Your task to perform on an android device: uninstall "Google Duo" Image 0: 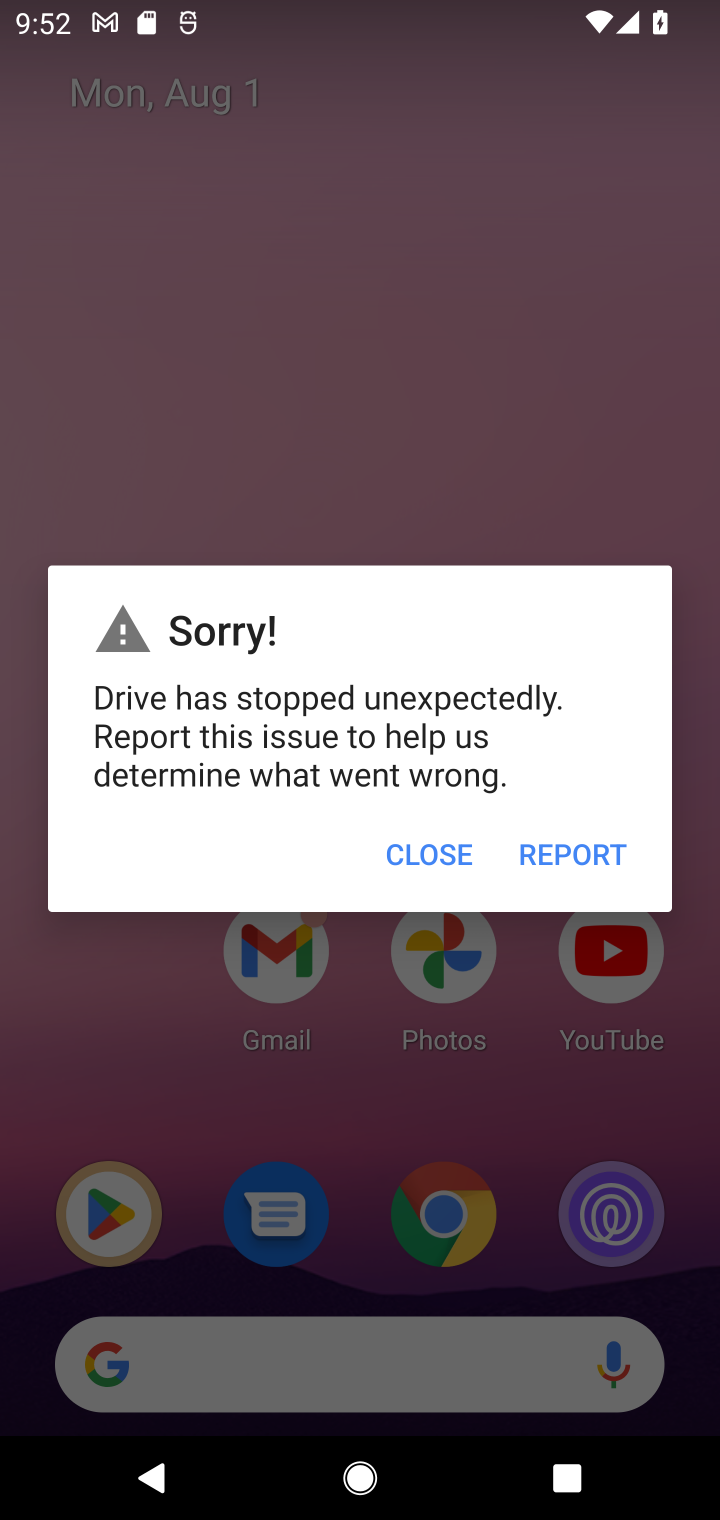
Step 0: press home button
Your task to perform on an android device: uninstall "Google Duo" Image 1: 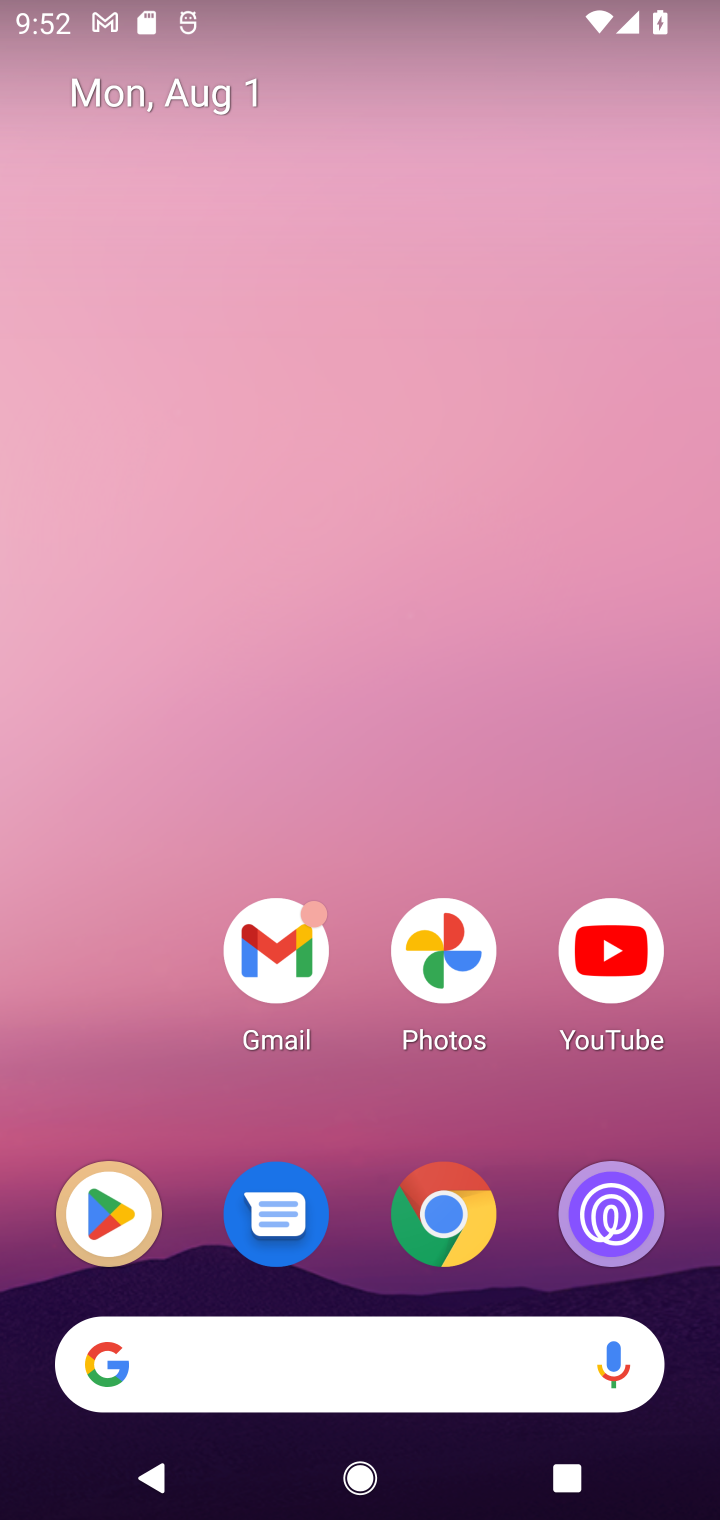
Step 1: click (89, 1216)
Your task to perform on an android device: uninstall "Google Duo" Image 2: 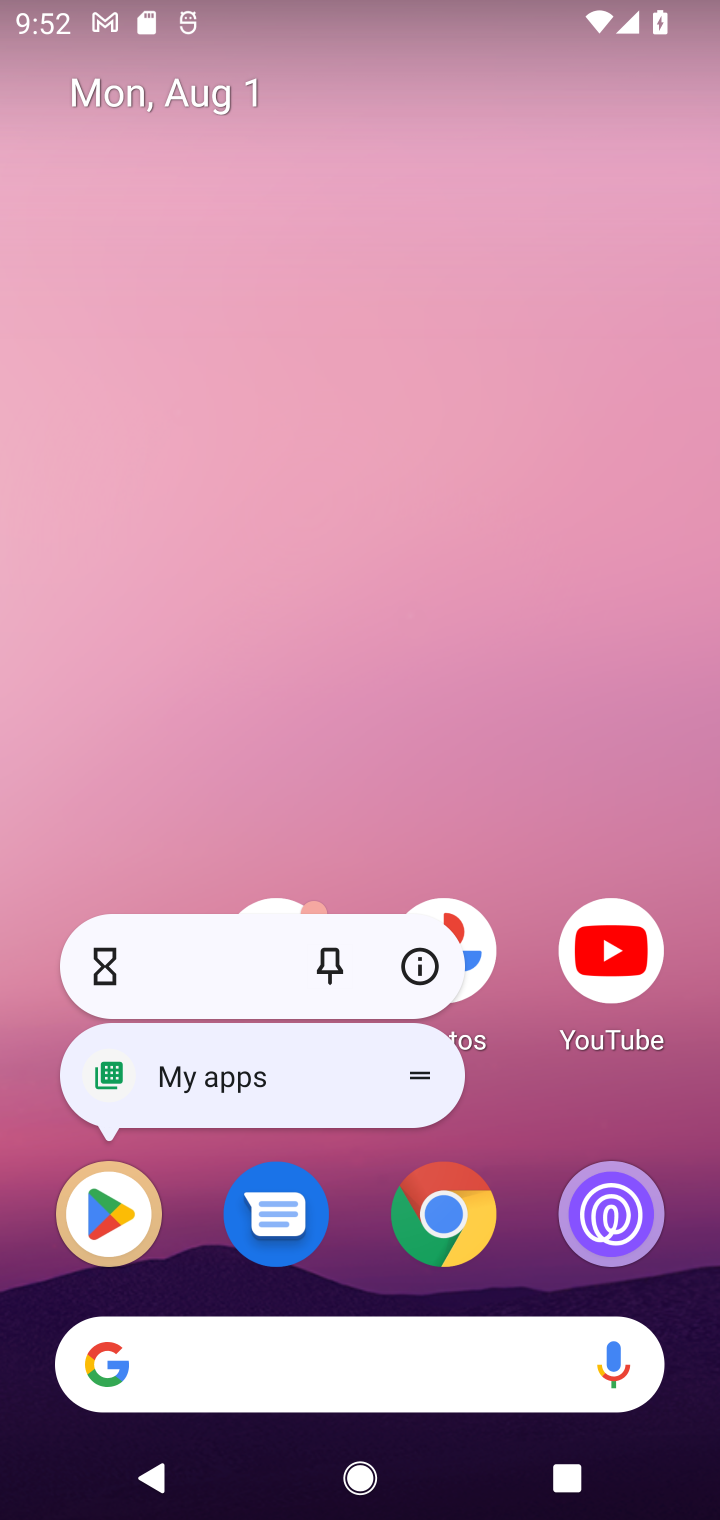
Step 2: click (95, 1221)
Your task to perform on an android device: uninstall "Google Duo" Image 3: 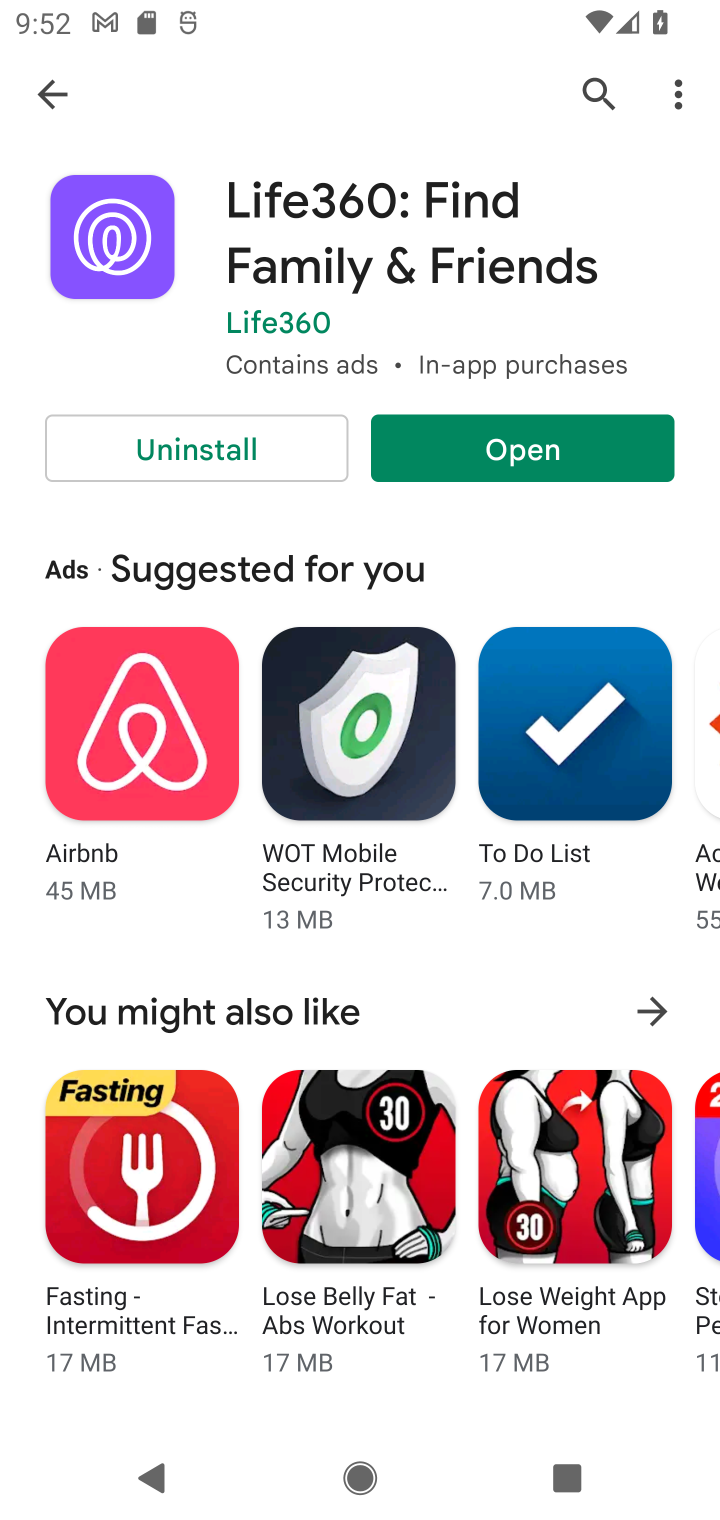
Step 3: click (599, 91)
Your task to perform on an android device: uninstall "Google Duo" Image 4: 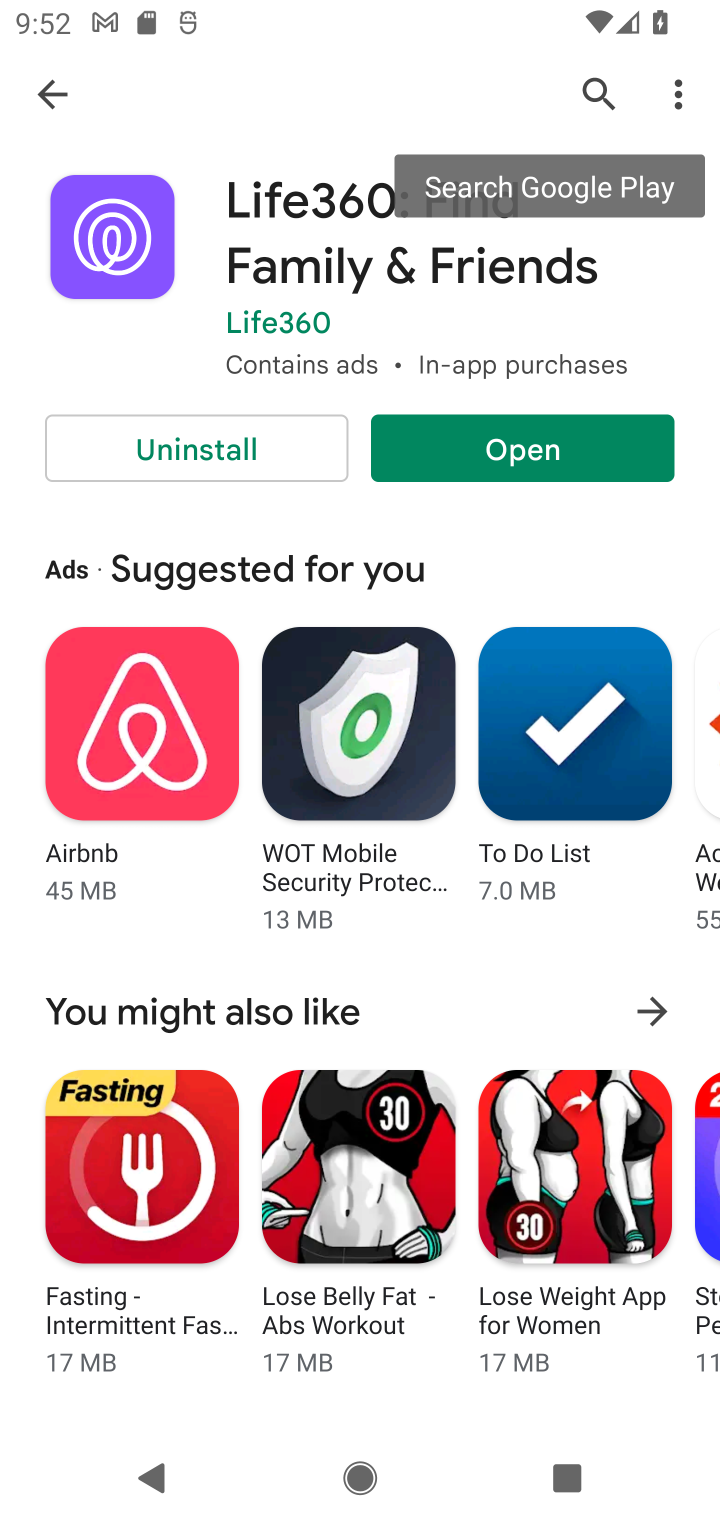
Step 4: click (590, 83)
Your task to perform on an android device: uninstall "Google Duo" Image 5: 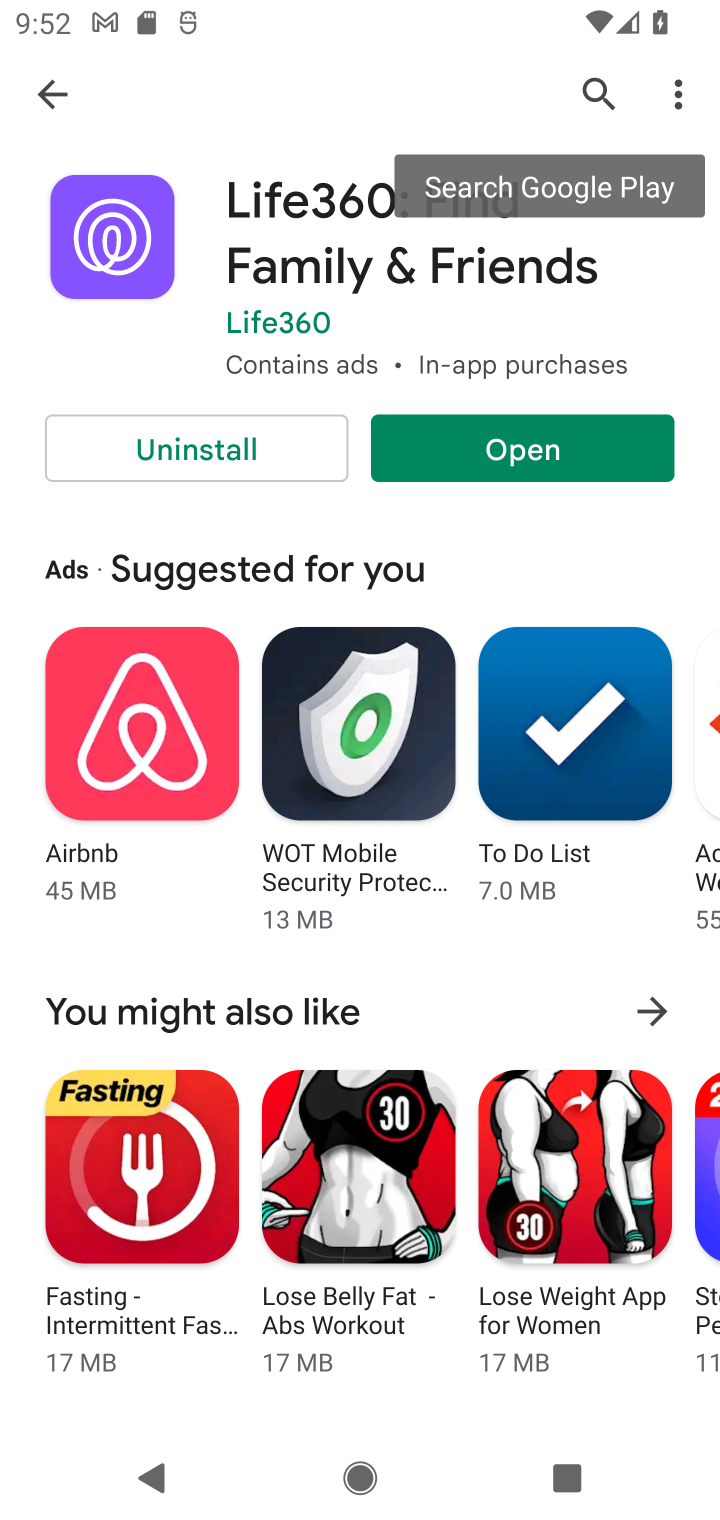
Step 5: click (592, 88)
Your task to perform on an android device: uninstall "Google Duo" Image 6: 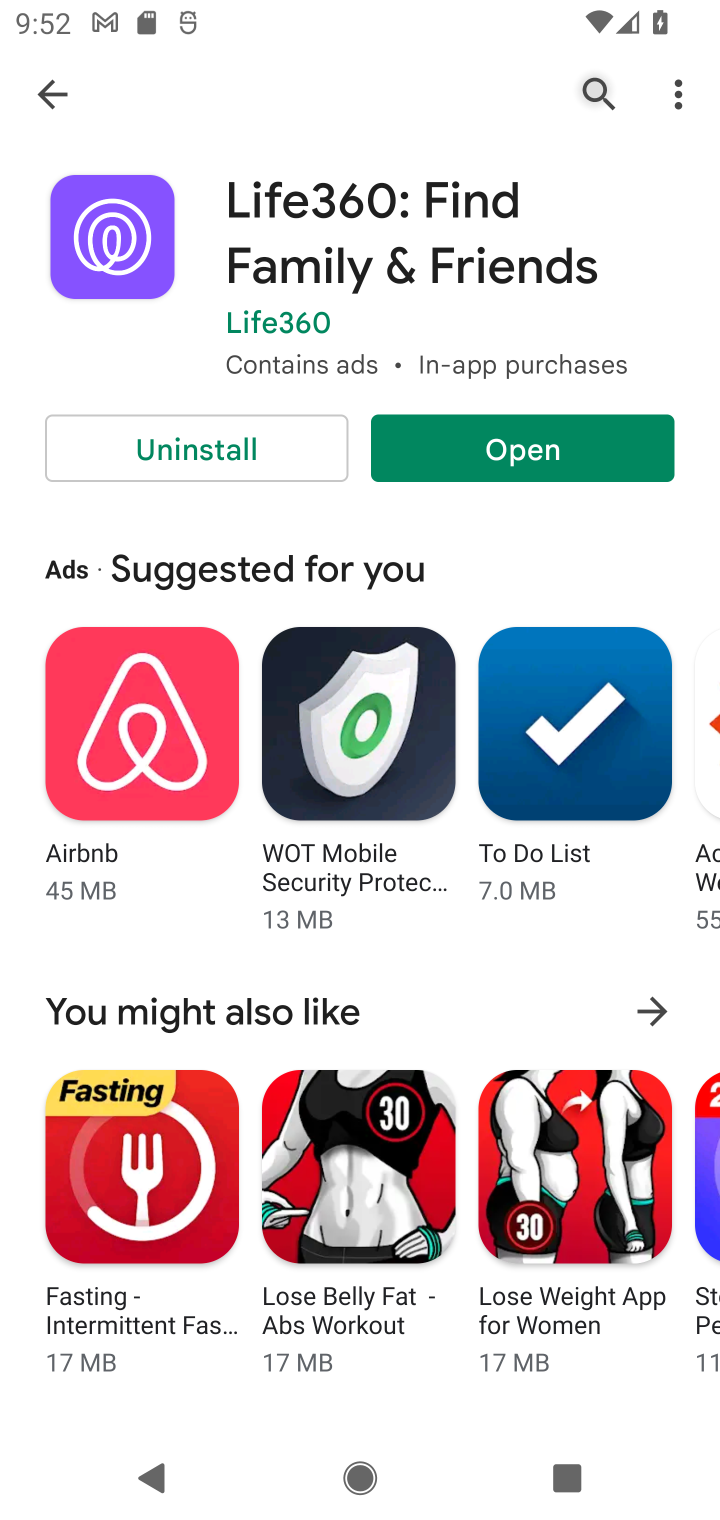
Step 6: click (46, 82)
Your task to perform on an android device: uninstall "Google Duo" Image 7: 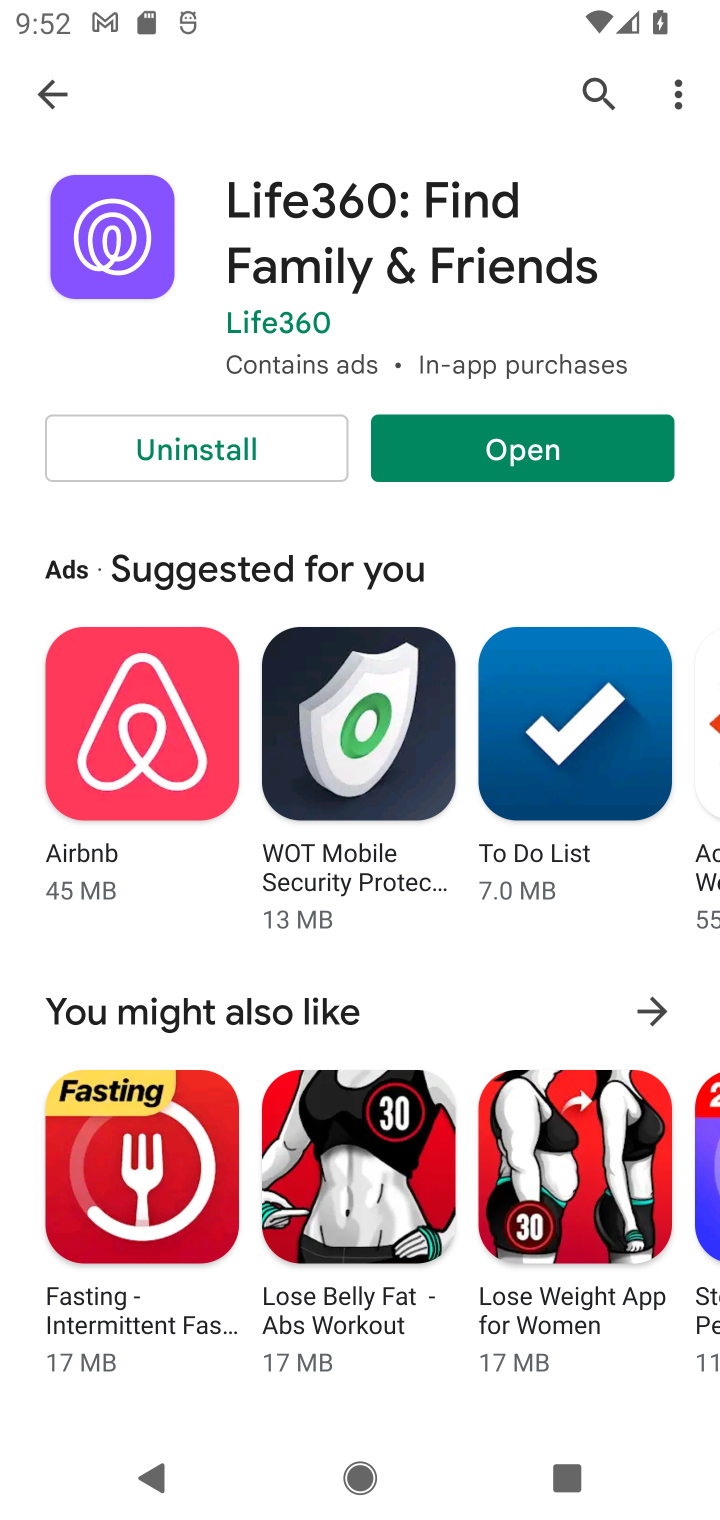
Step 7: click (581, 83)
Your task to perform on an android device: uninstall "Google Duo" Image 8: 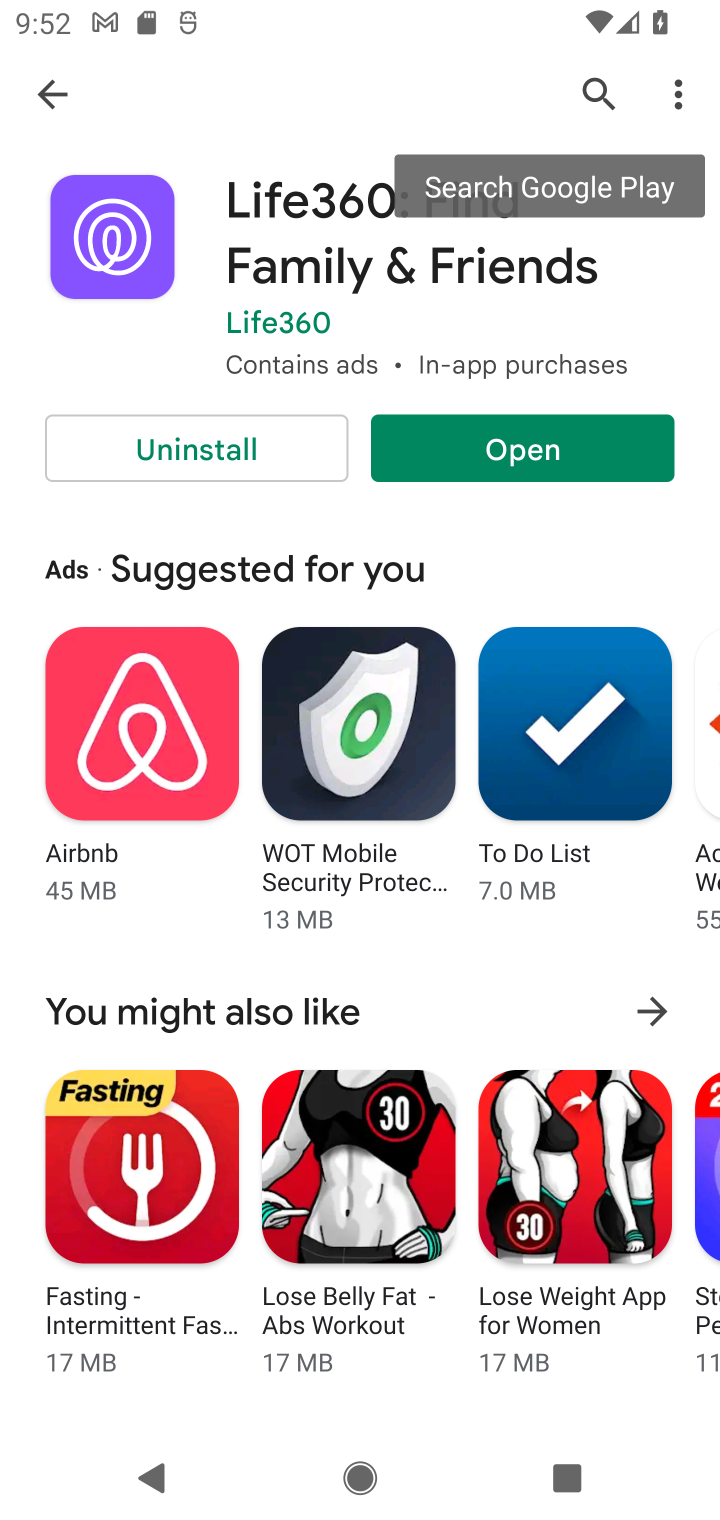
Step 8: click (594, 81)
Your task to perform on an android device: uninstall "Google Duo" Image 9: 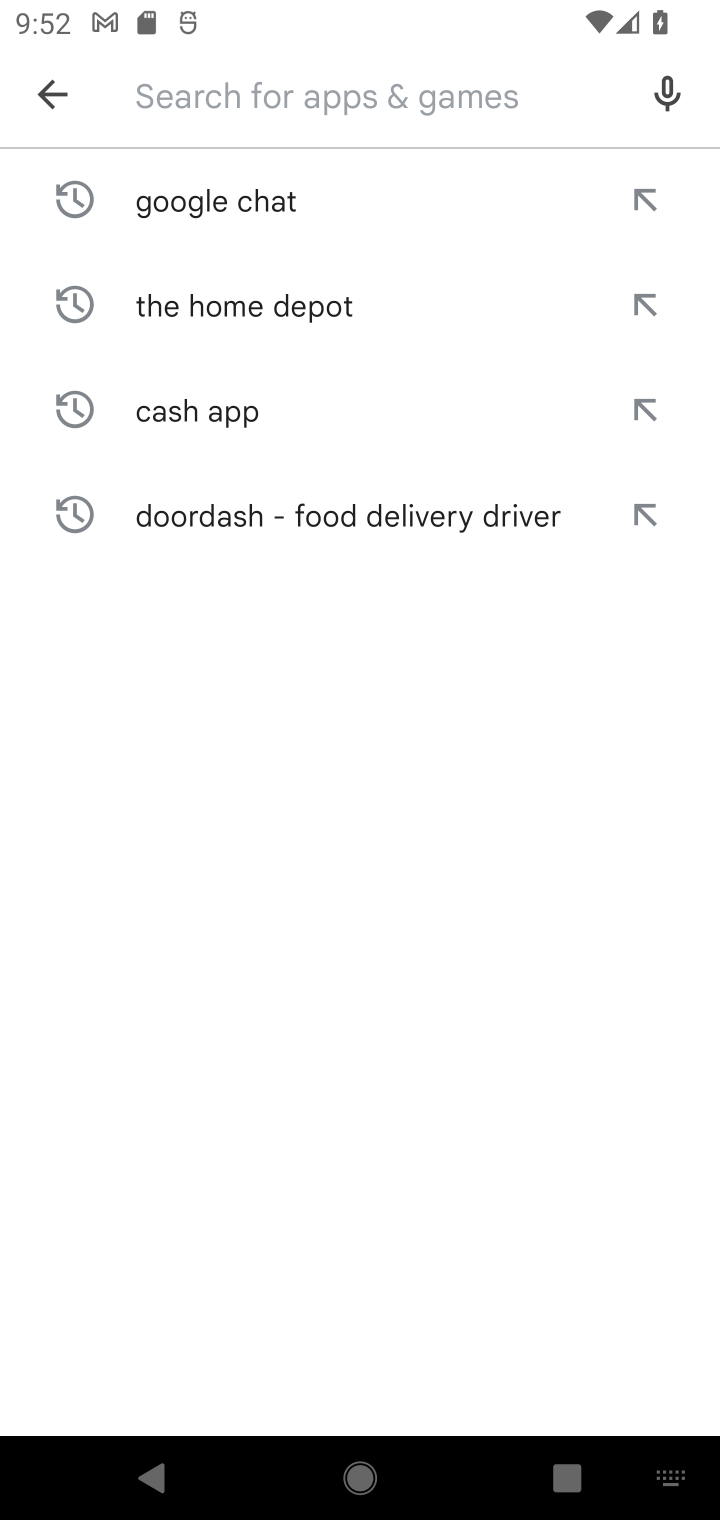
Step 9: type "Google Duo"
Your task to perform on an android device: uninstall "Google Duo" Image 10: 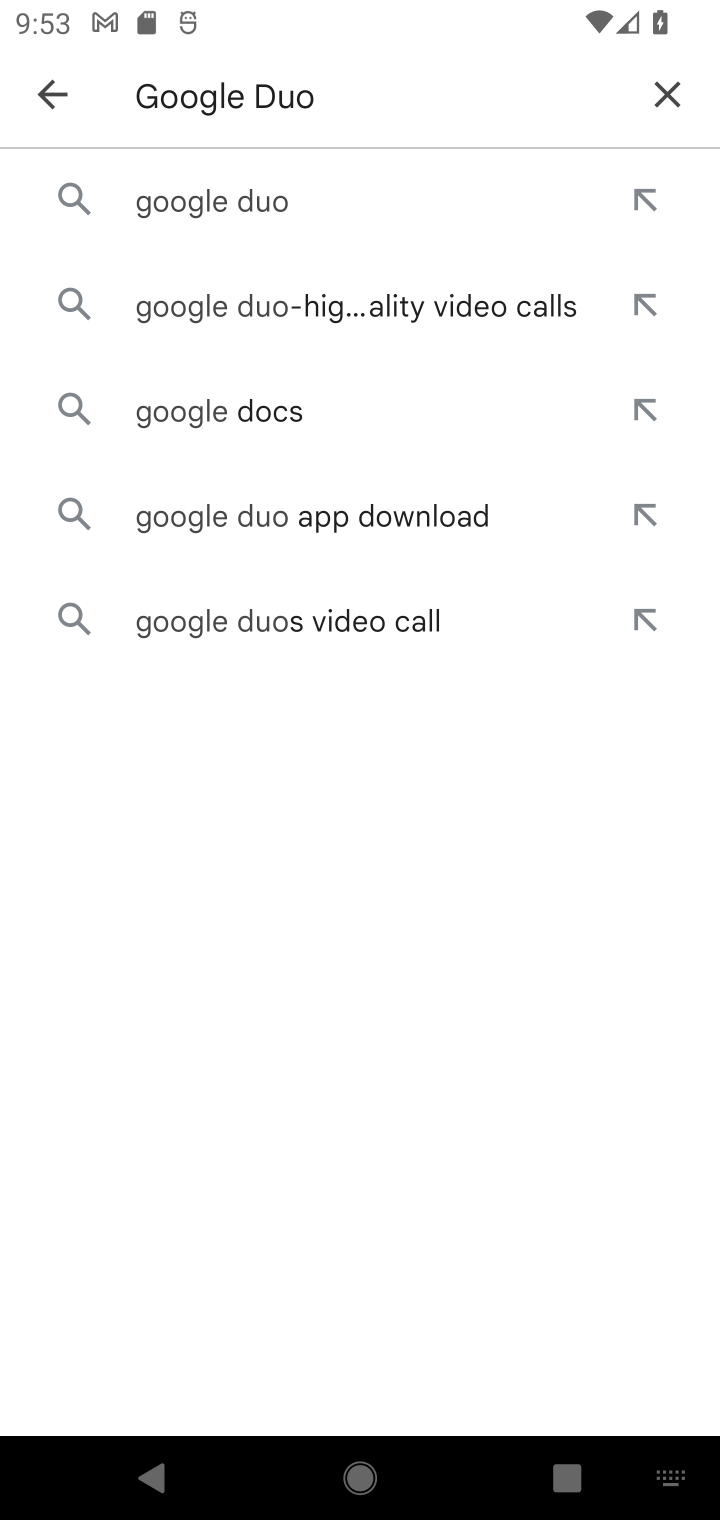
Step 10: click (242, 187)
Your task to perform on an android device: uninstall "Google Duo" Image 11: 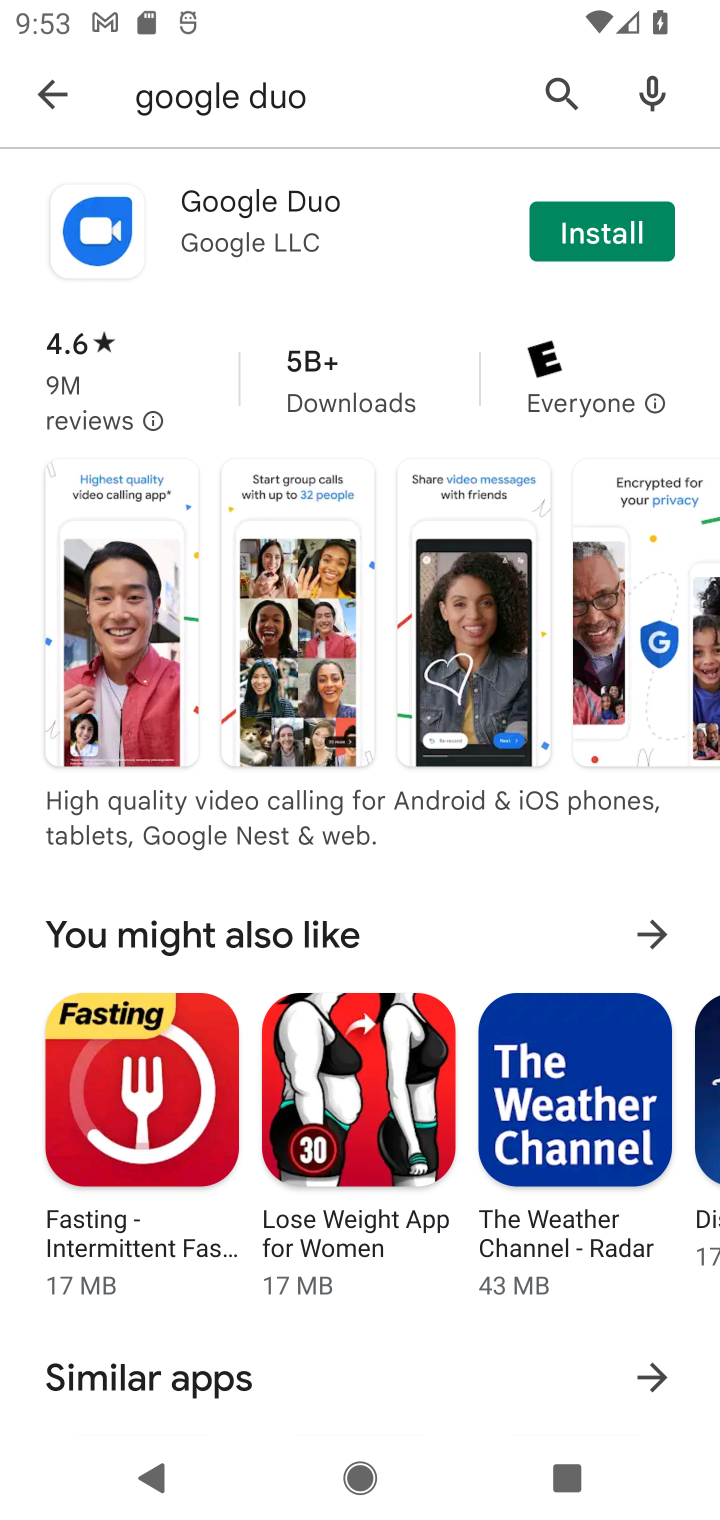
Step 11: task complete